Your task to perform on an android device: Show me popular games on the Play Store Image 0: 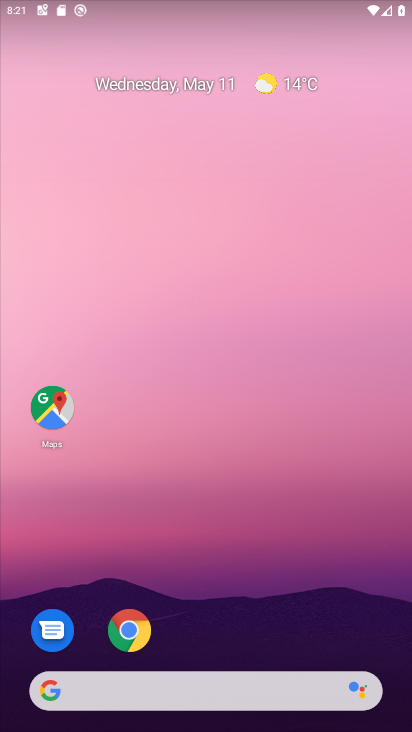
Step 0: press home button
Your task to perform on an android device: Show me popular games on the Play Store Image 1: 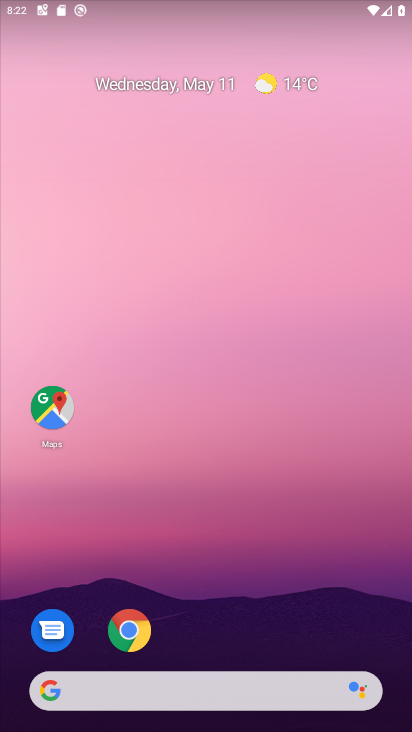
Step 1: drag from (59, 539) to (257, 23)
Your task to perform on an android device: Show me popular games on the Play Store Image 2: 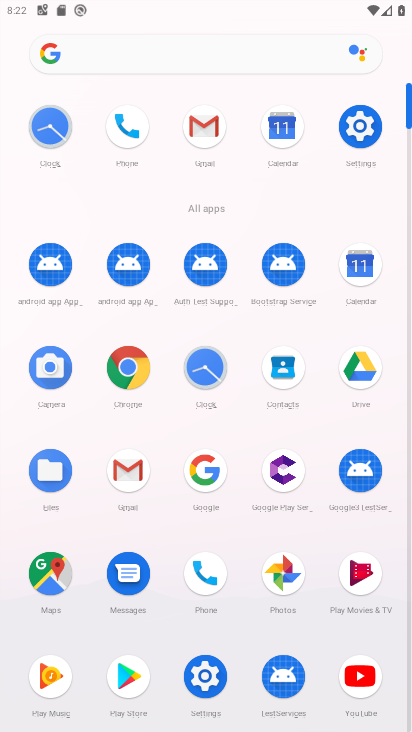
Step 2: click (125, 684)
Your task to perform on an android device: Show me popular games on the Play Store Image 3: 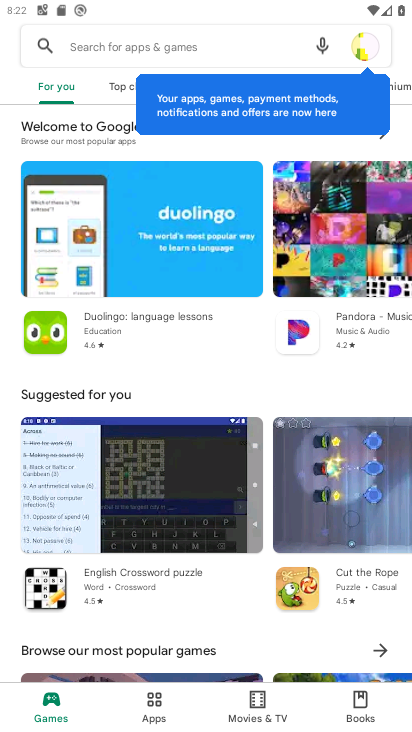
Step 3: task complete